Your task to perform on an android device: Search for sushi restaurants on Maps Image 0: 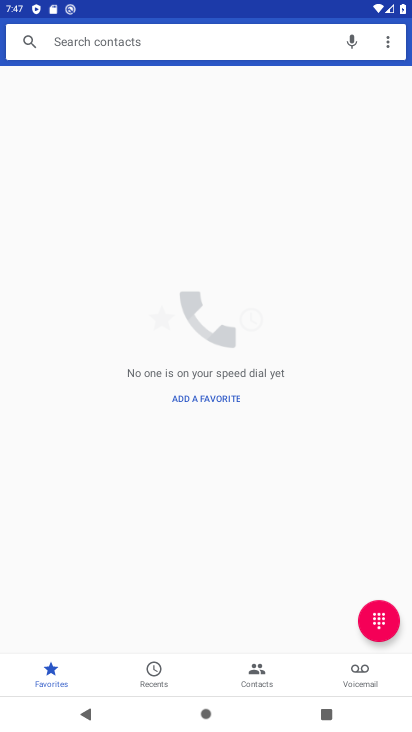
Step 0: press home button
Your task to perform on an android device: Search for sushi restaurants on Maps Image 1: 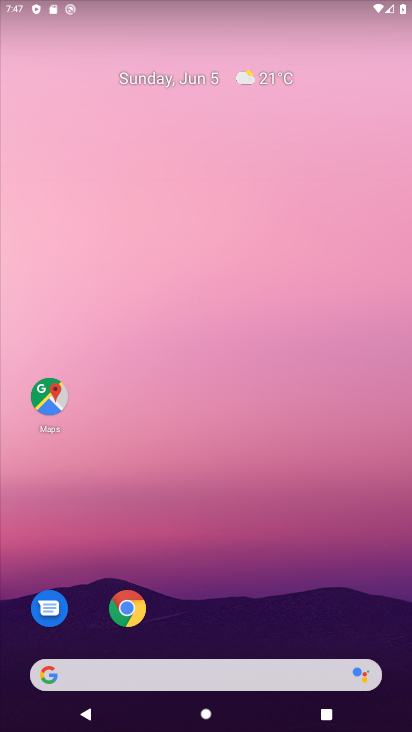
Step 1: click (54, 396)
Your task to perform on an android device: Search for sushi restaurants on Maps Image 2: 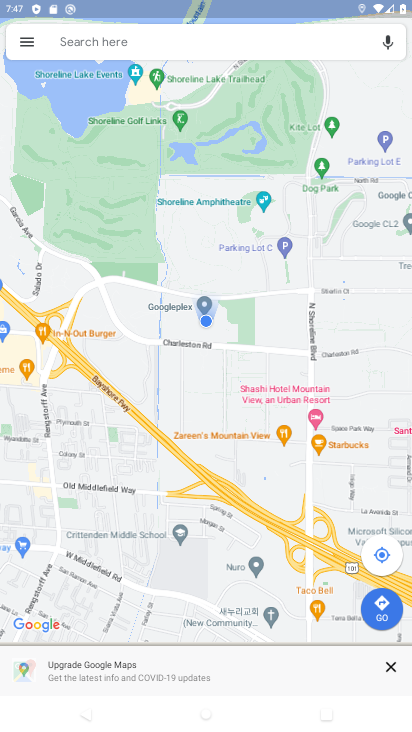
Step 2: click (180, 43)
Your task to perform on an android device: Search for sushi restaurants on Maps Image 3: 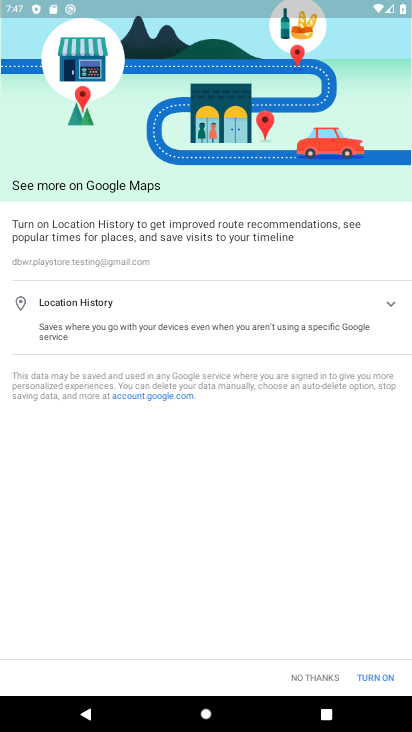
Step 3: type "Sushi restaurants'"
Your task to perform on an android device: Search for sushi restaurants on Maps Image 4: 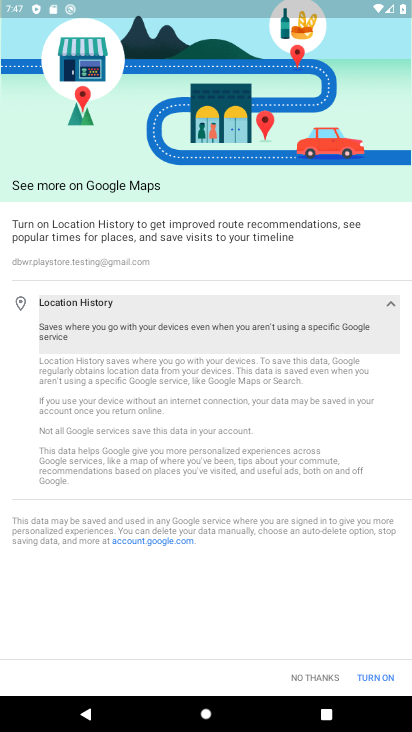
Step 4: click (319, 669)
Your task to perform on an android device: Search for sushi restaurants on Maps Image 5: 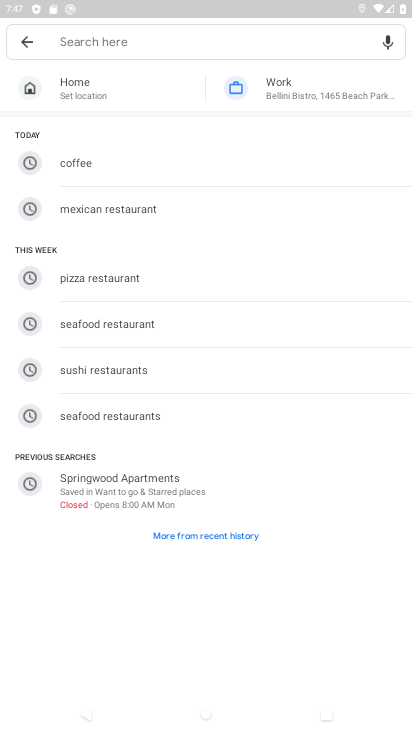
Step 5: click (129, 375)
Your task to perform on an android device: Search for sushi restaurants on Maps Image 6: 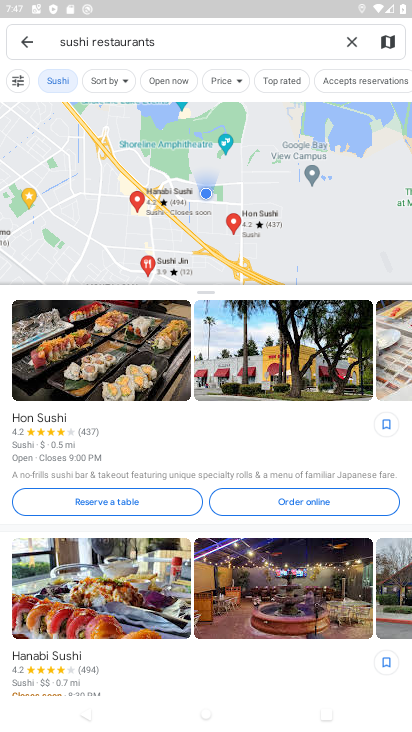
Step 6: task complete